Your task to perform on an android device: find photos in the google photos app Image 0: 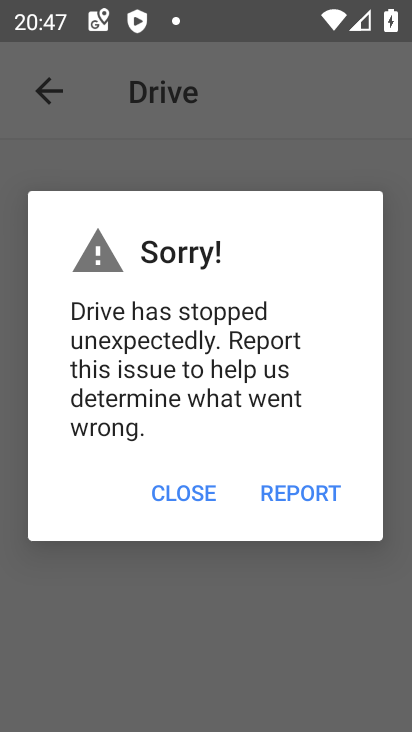
Step 0: press home button
Your task to perform on an android device: find photos in the google photos app Image 1: 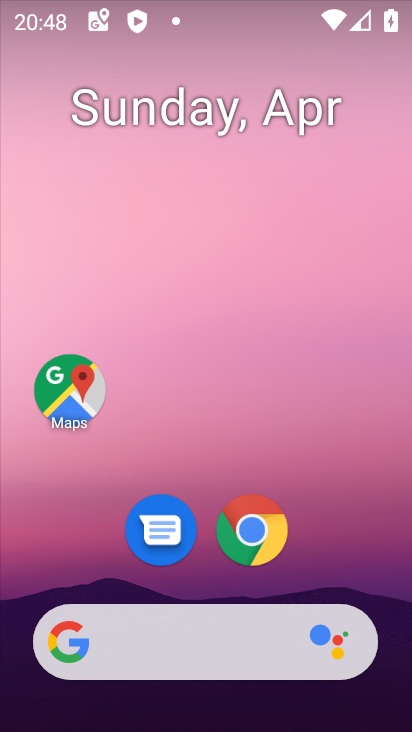
Step 1: drag from (203, 539) to (260, 113)
Your task to perform on an android device: find photos in the google photos app Image 2: 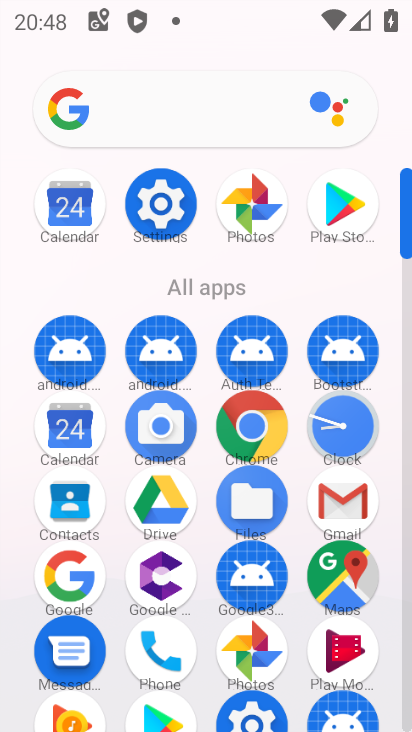
Step 2: click (247, 204)
Your task to perform on an android device: find photos in the google photos app Image 3: 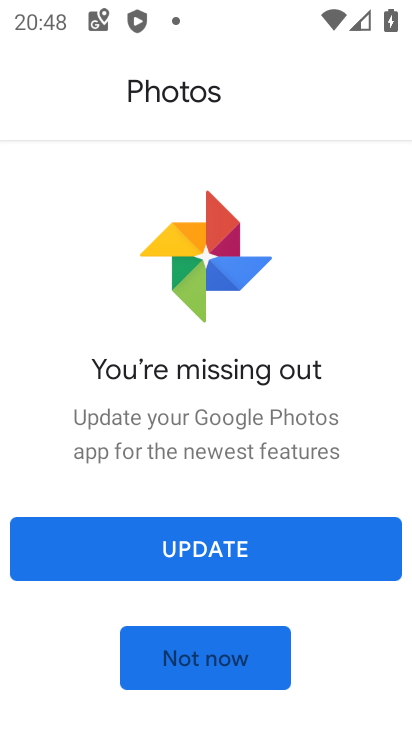
Step 3: click (220, 550)
Your task to perform on an android device: find photos in the google photos app Image 4: 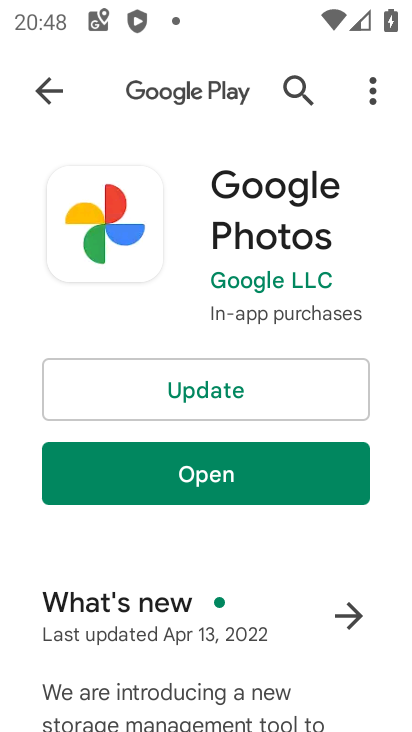
Step 4: click (192, 384)
Your task to perform on an android device: find photos in the google photos app Image 5: 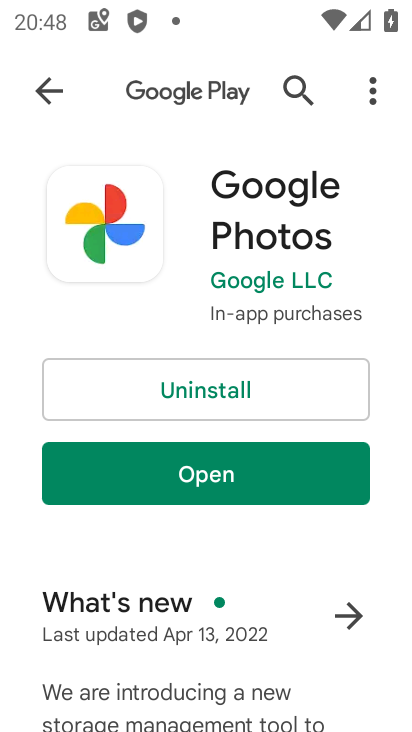
Step 5: click (208, 482)
Your task to perform on an android device: find photos in the google photos app Image 6: 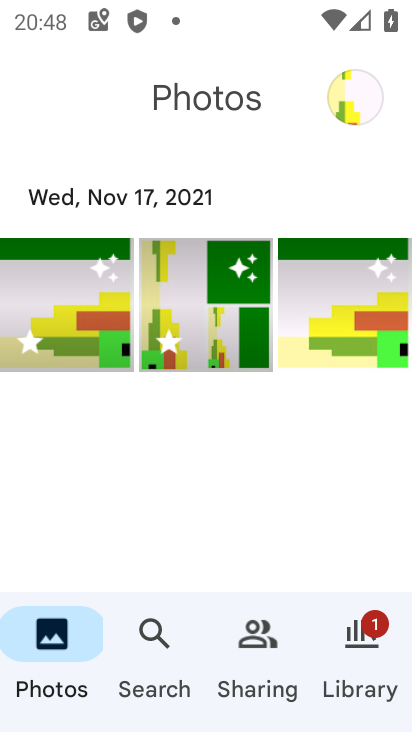
Step 6: task complete